Your task to perform on an android device: What's the weather today? Image 0: 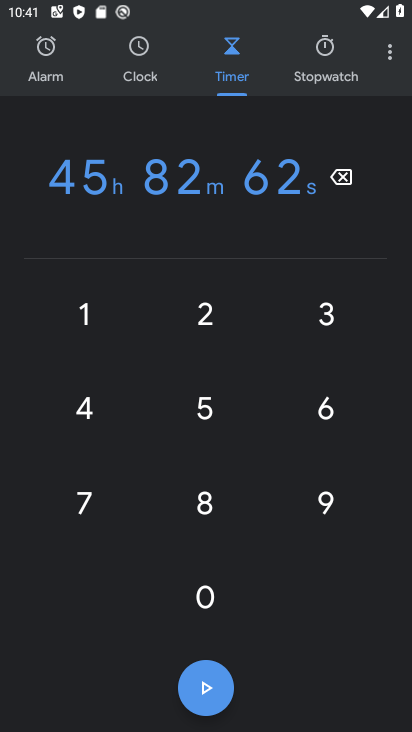
Step 0: press home button
Your task to perform on an android device: What's the weather today? Image 1: 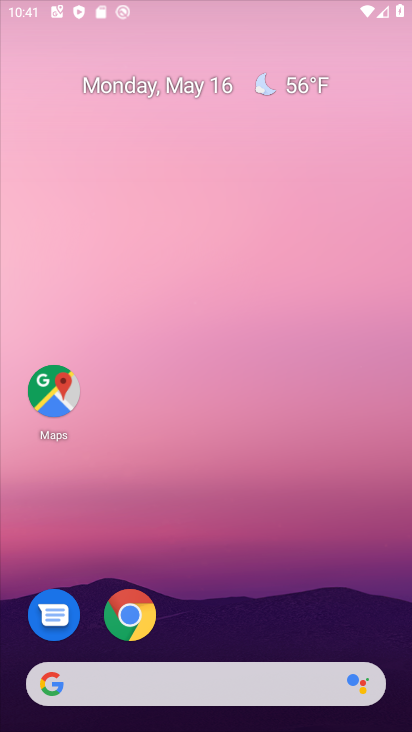
Step 1: drag from (279, 702) to (250, 202)
Your task to perform on an android device: What's the weather today? Image 2: 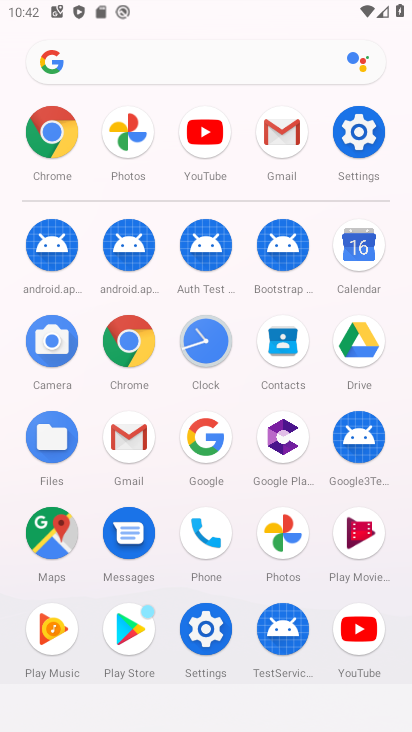
Step 2: click (126, 55)
Your task to perform on an android device: What's the weather today? Image 3: 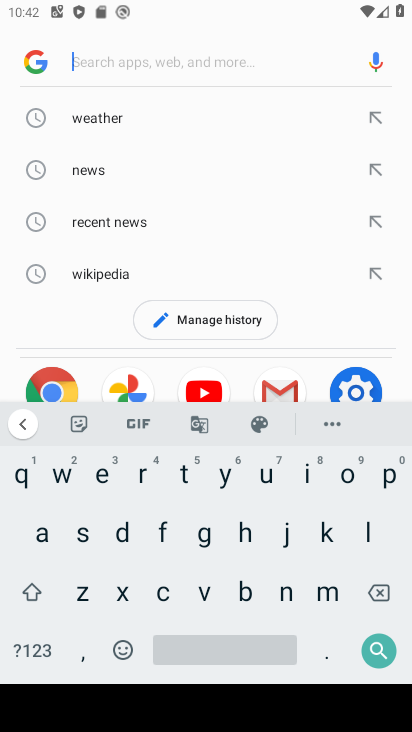
Step 3: click (94, 118)
Your task to perform on an android device: What's the weather today? Image 4: 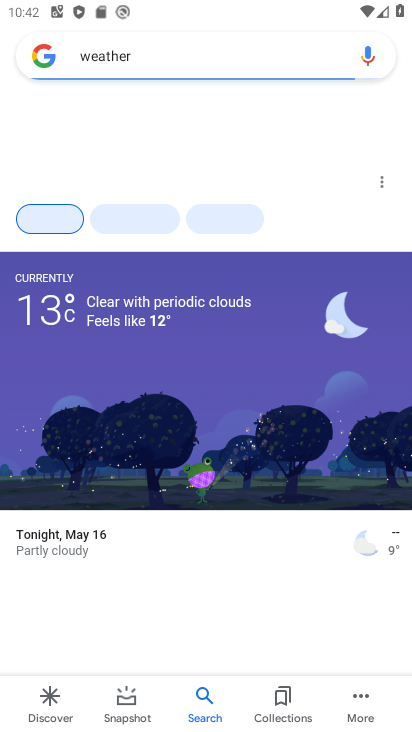
Step 4: task complete